Your task to perform on an android device: choose inbox layout in the gmail app Image 0: 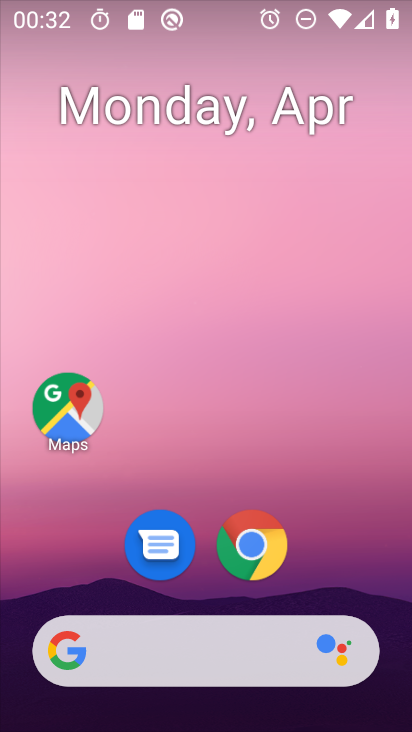
Step 0: drag from (329, 385) to (303, 185)
Your task to perform on an android device: choose inbox layout in the gmail app Image 1: 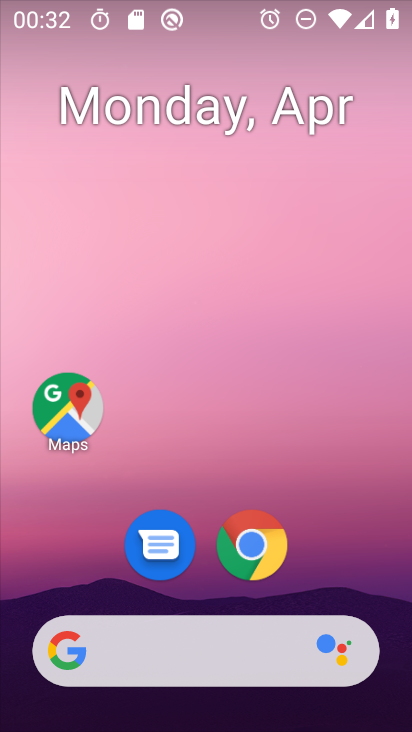
Step 1: drag from (305, 582) to (321, 159)
Your task to perform on an android device: choose inbox layout in the gmail app Image 2: 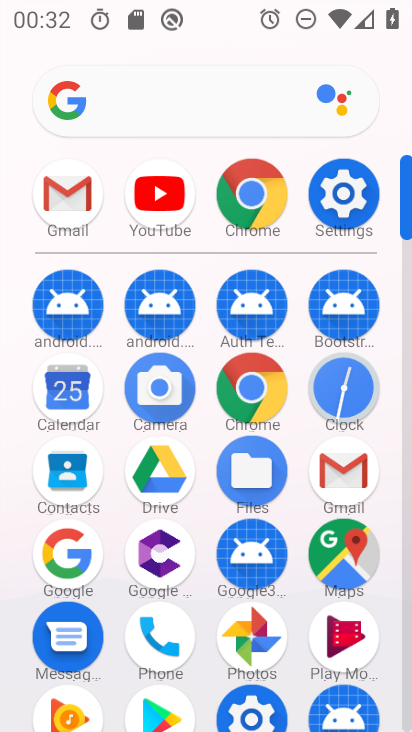
Step 2: click (68, 190)
Your task to perform on an android device: choose inbox layout in the gmail app Image 3: 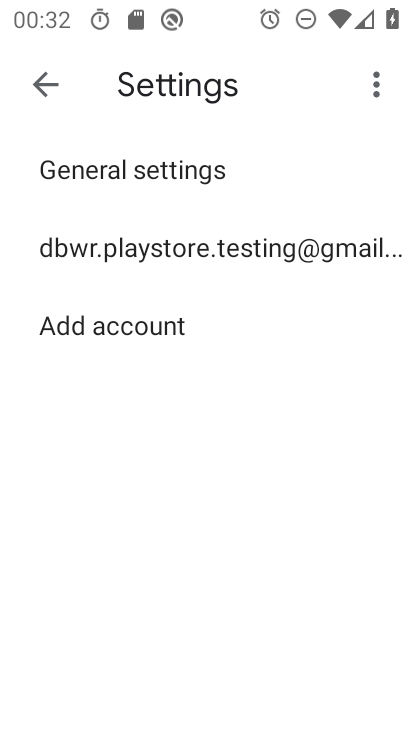
Step 3: click (145, 239)
Your task to perform on an android device: choose inbox layout in the gmail app Image 4: 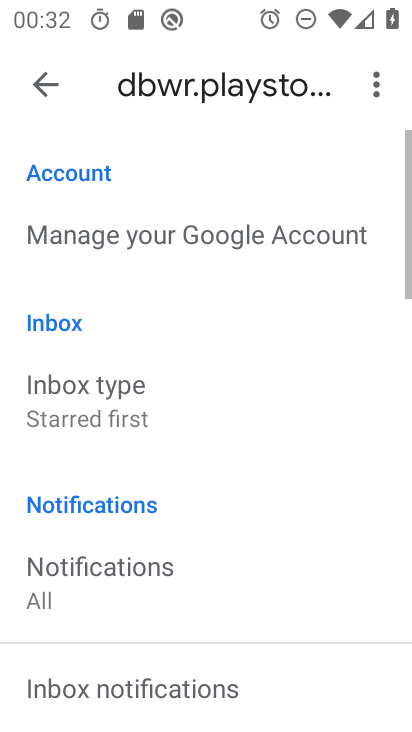
Step 4: drag from (203, 661) to (264, 213)
Your task to perform on an android device: choose inbox layout in the gmail app Image 5: 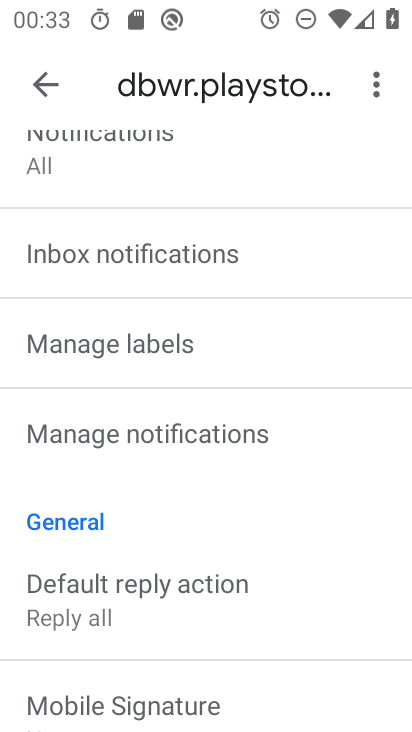
Step 5: drag from (245, 168) to (226, 393)
Your task to perform on an android device: choose inbox layout in the gmail app Image 6: 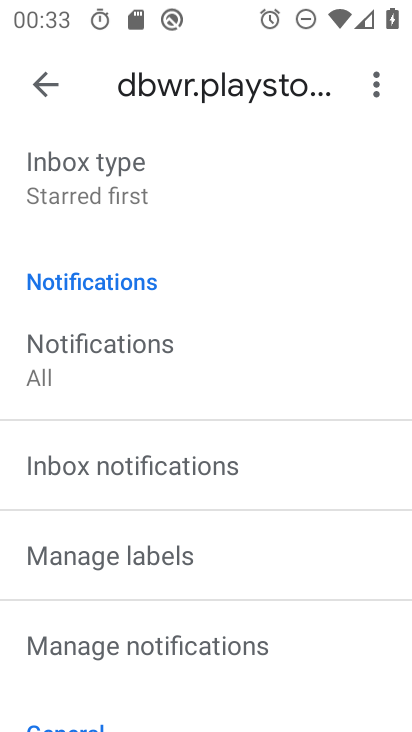
Step 6: click (126, 450)
Your task to perform on an android device: choose inbox layout in the gmail app Image 7: 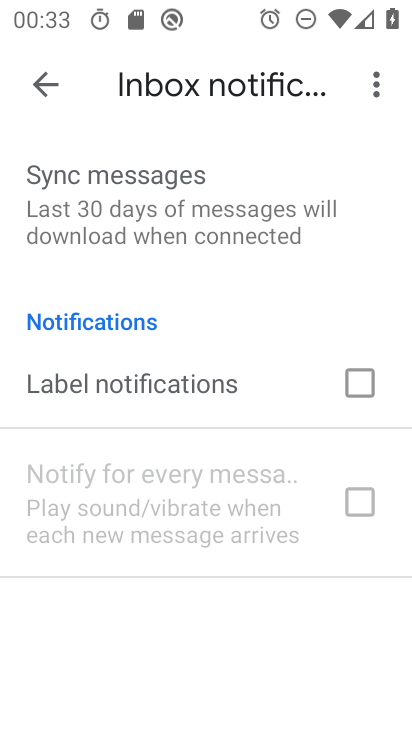
Step 7: click (57, 75)
Your task to perform on an android device: choose inbox layout in the gmail app Image 8: 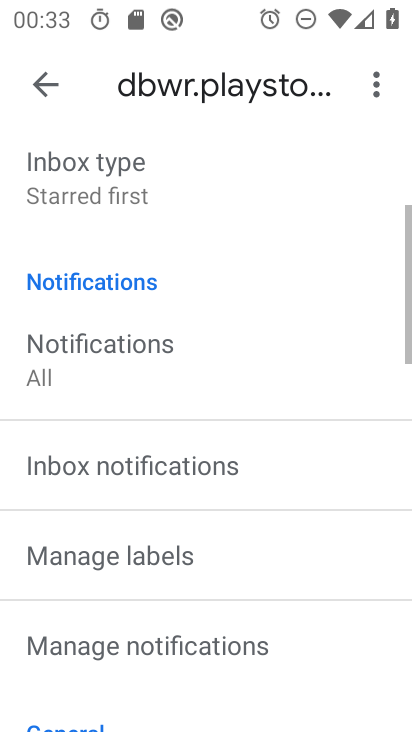
Step 8: click (164, 460)
Your task to perform on an android device: choose inbox layout in the gmail app Image 9: 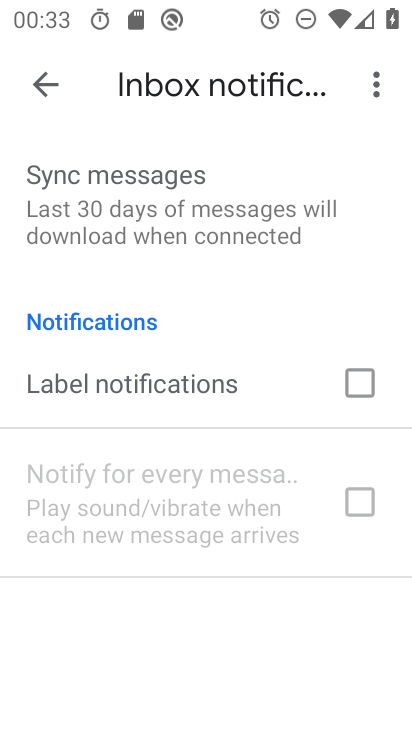
Step 9: click (27, 68)
Your task to perform on an android device: choose inbox layout in the gmail app Image 10: 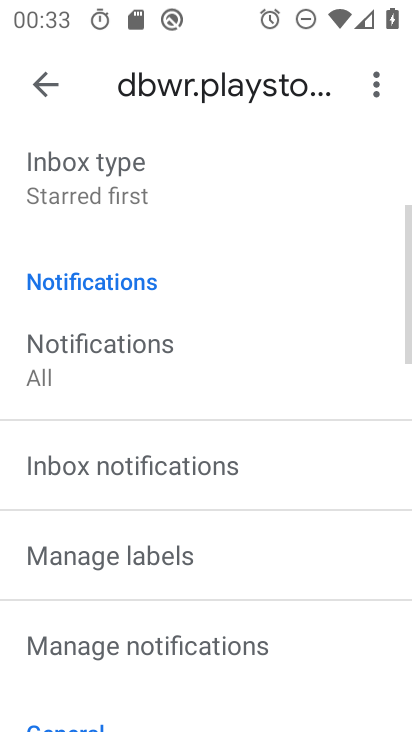
Step 10: drag from (200, 454) to (167, 591)
Your task to perform on an android device: choose inbox layout in the gmail app Image 11: 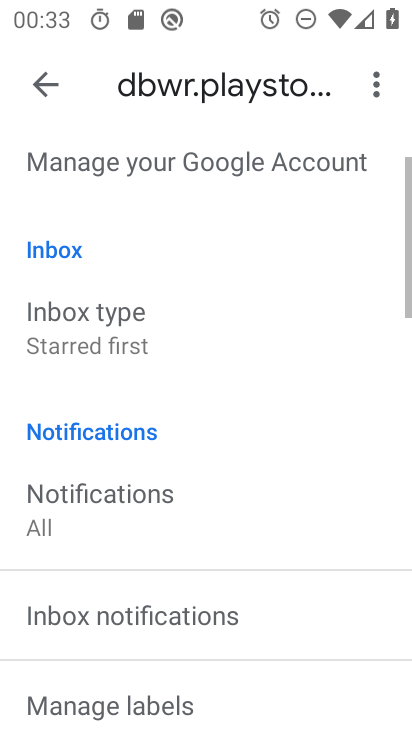
Step 11: click (114, 343)
Your task to perform on an android device: choose inbox layout in the gmail app Image 12: 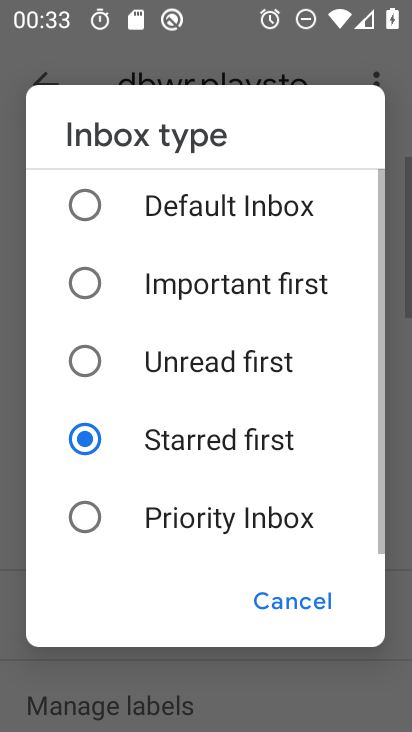
Step 12: click (215, 280)
Your task to perform on an android device: choose inbox layout in the gmail app Image 13: 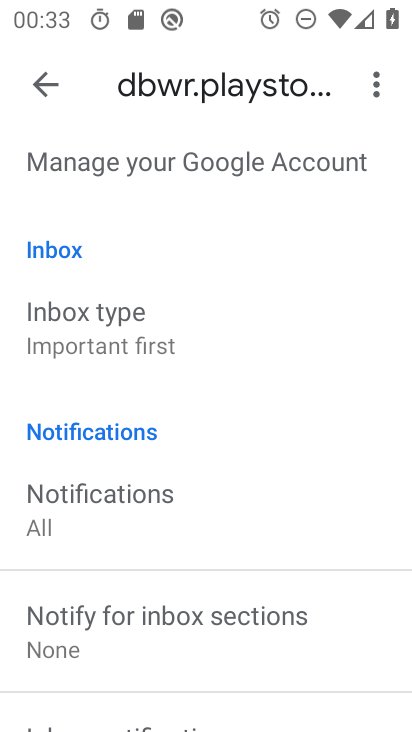
Step 13: task complete